Your task to perform on an android device: turn off translation in the chrome app Image 0: 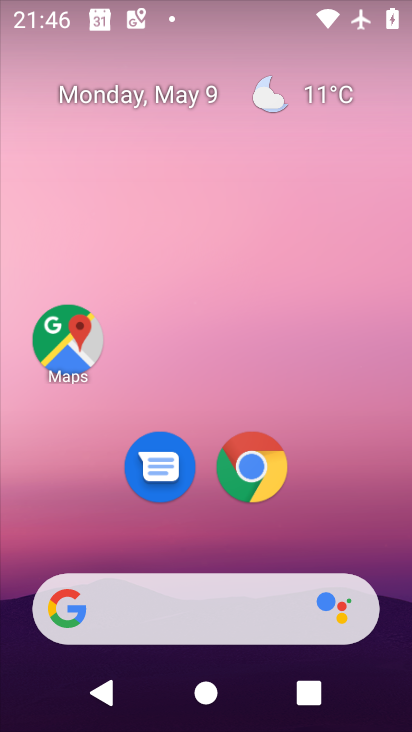
Step 0: drag from (291, 525) to (336, 184)
Your task to perform on an android device: turn off translation in the chrome app Image 1: 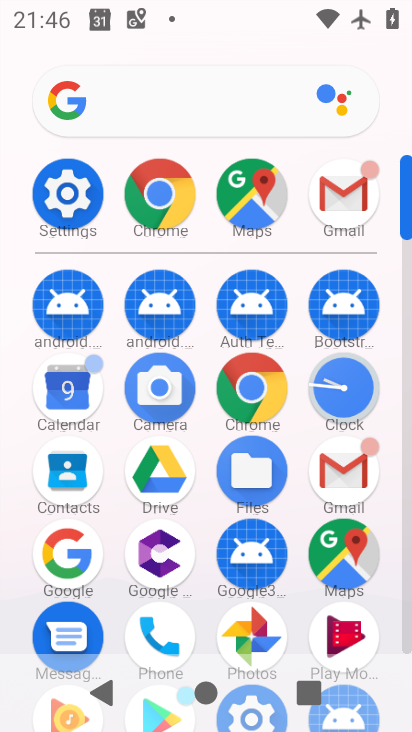
Step 1: click (157, 177)
Your task to perform on an android device: turn off translation in the chrome app Image 2: 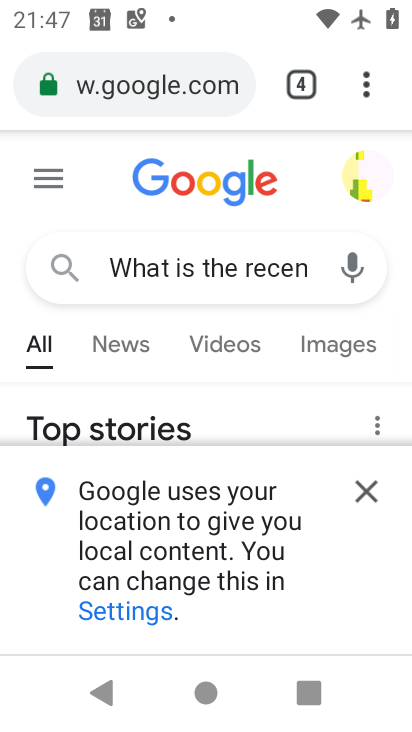
Step 2: click (352, 75)
Your task to perform on an android device: turn off translation in the chrome app Image 3: 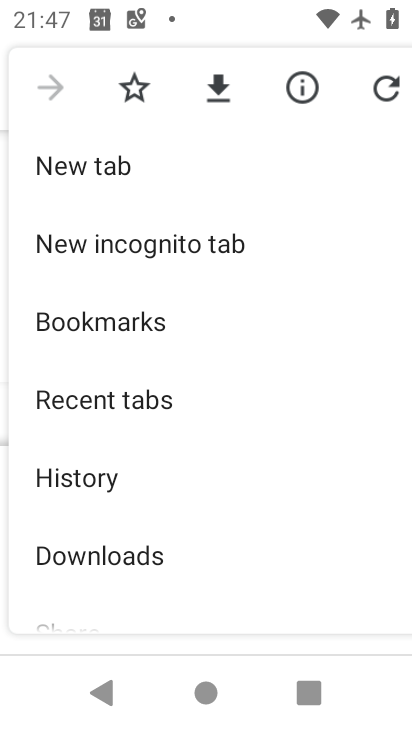
Step 3: drag from (154, 589) to (208, 215)
Your task to perform on an android device: turn off translation in the chrome app Image 4: 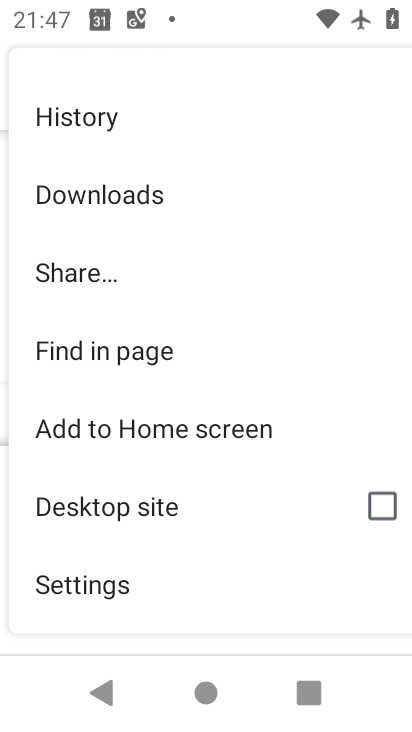
Step 4: click (138, 570)
Your task to perform on an android device: turn off translation in the chrome app Image 5: 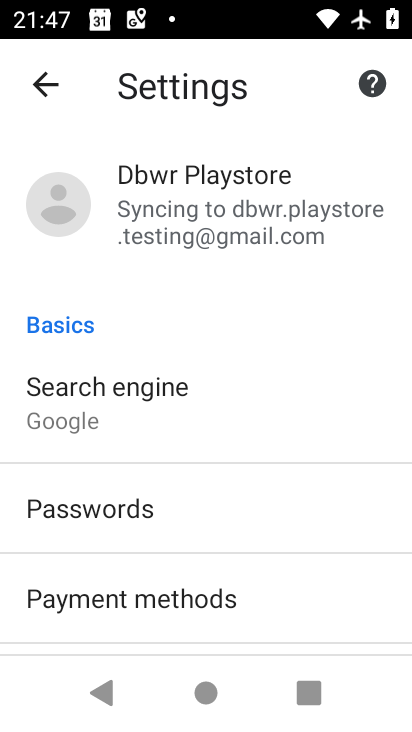
Step 5: drag from (195, 588) to (252, 321)
Your task to perform on an android device: turn off translation in the chrome app Image 6: 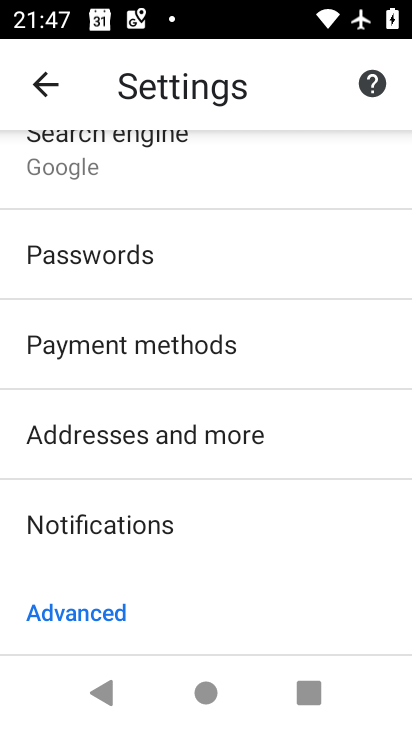
Step 6: drag from (215, 592) to (250, 198)
Your task to perform on an android device: turn off translation in the chrome app Image 7: 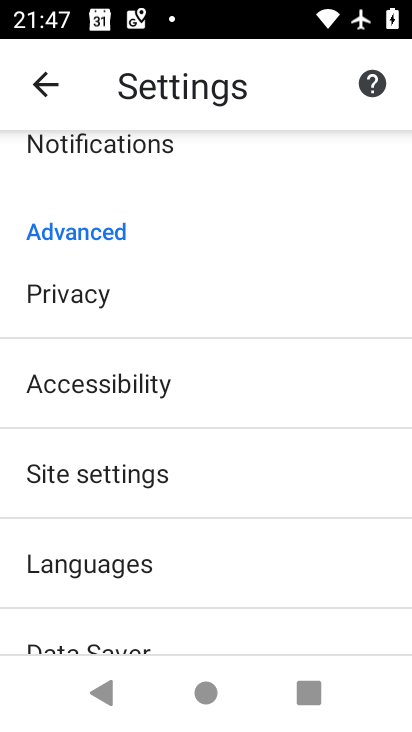
Step 7: click (127, 565)
Your task to perform on an android device: turn off translation in the chrome app Image 8: 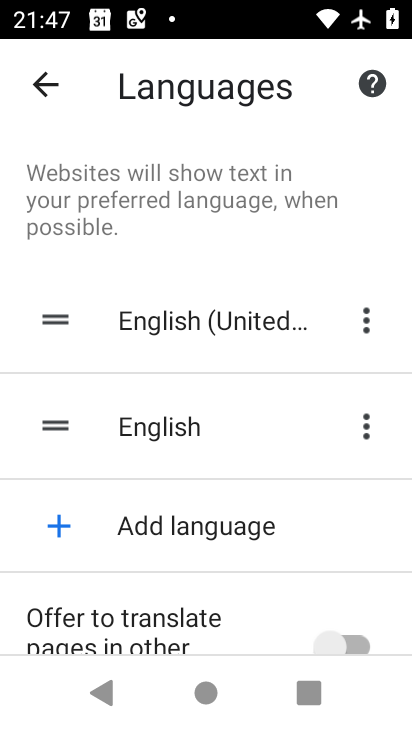
Step 8: task complete